Your task to perform on an android device: check storage Image 0: 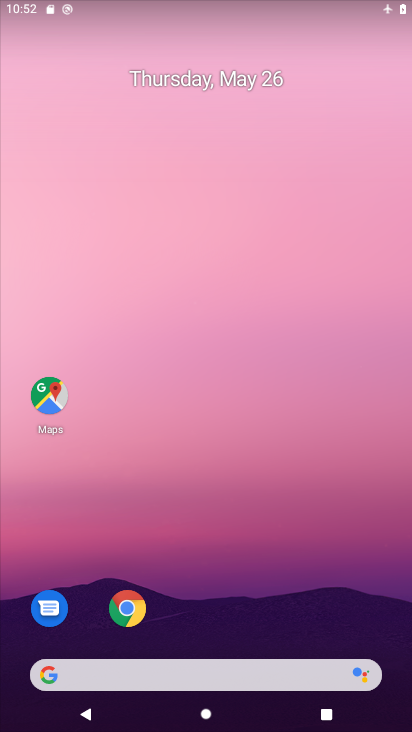
Step 0: drag from (393, 713) to (321, 220)
Your task to perform on an android device: check storage Image 1: 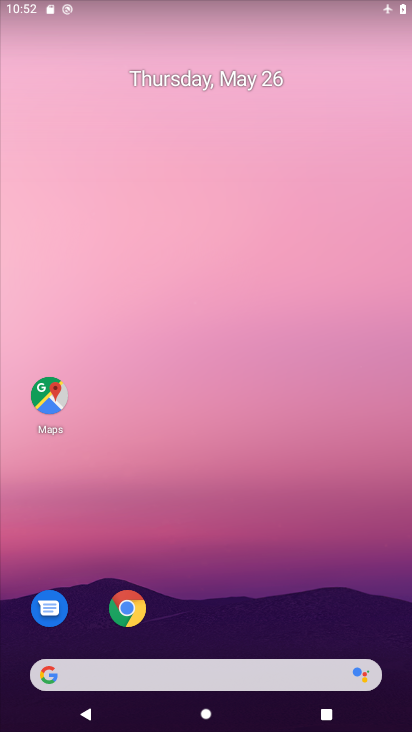
Step 1: drag from (382, 598) to (300, 112)
Your task to perform on an android device: check storage Image 2: 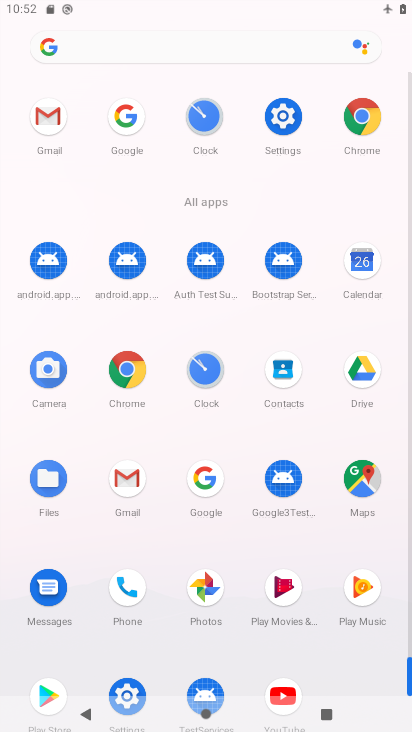
Step 2: click (282, 124)
Your task to perform on an android device: check storage Image 3: 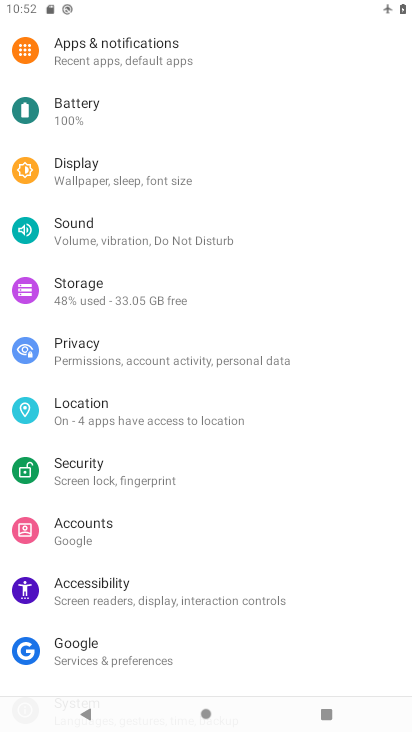
Step 3: click (93, 286)
Your task to perform on an android device: check storage Image 4: 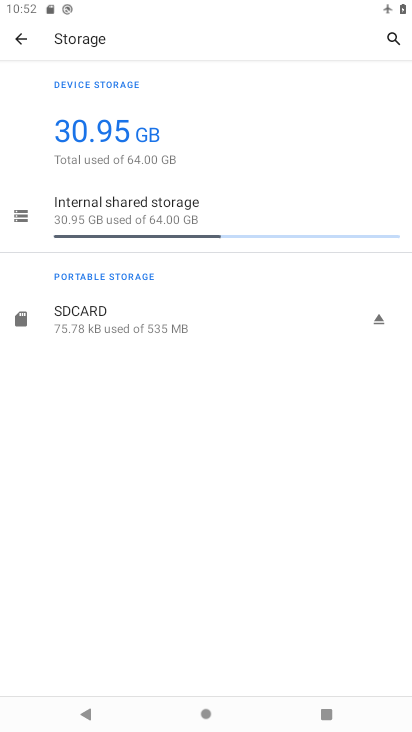
Step 4: task complete